Your task to perform on an android device: toggle sleep mode Image 0: 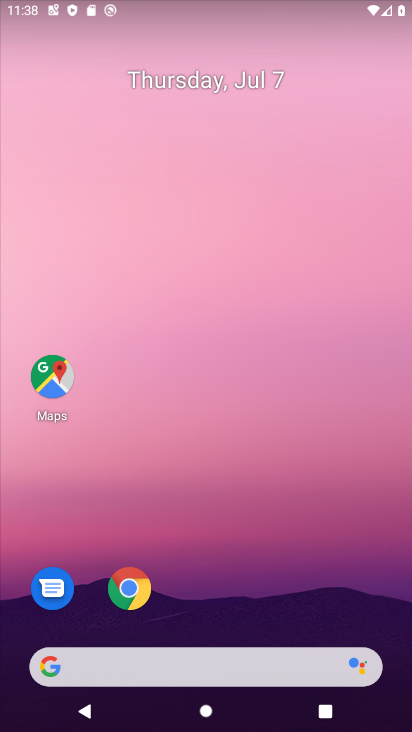
Step 0: drag from (268, 593) to (321, 66)
Your task to perform on an android device: toggle sleep mode Image 1: 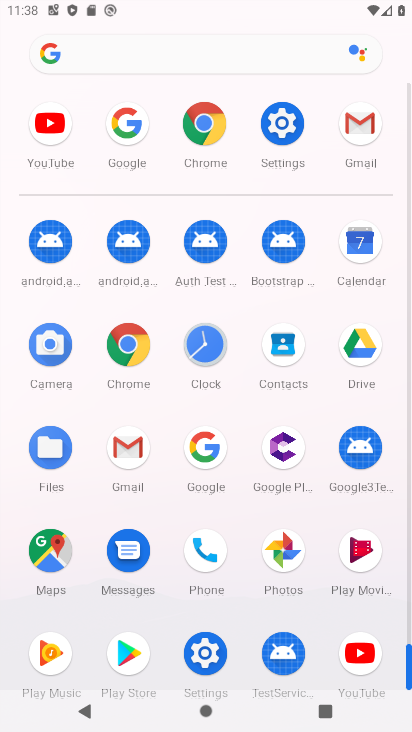
Step 1: click (282, 127)
Your task to perform on an android device: toggle sleep mode Image 2: 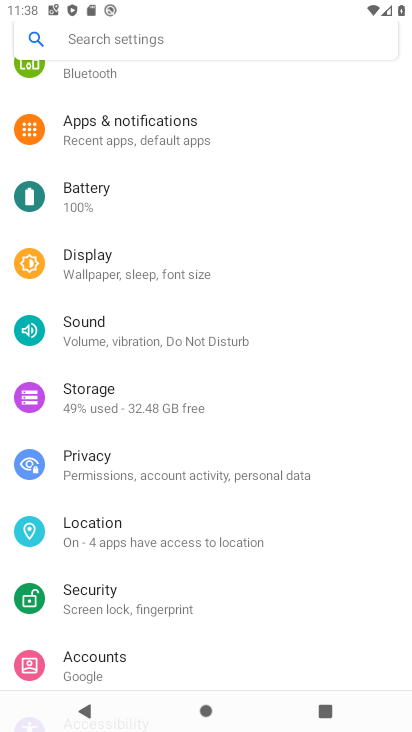
Step 2: click (129, 273)
Your task to perform on an android device: toggle sleep mode Image 3: 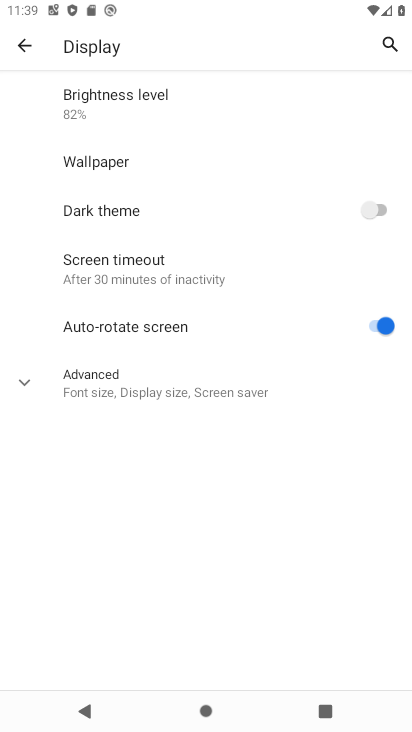
Step 3: click (124, 297)
Your task to perform on an android device: toggle sleep mode Image 4: 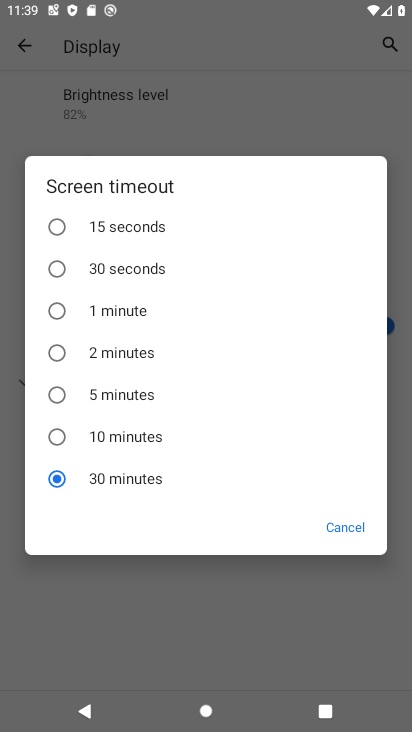
Step 4: click (59, 435)
Your task to perform on an android device: toggle sleep mode Image 5: 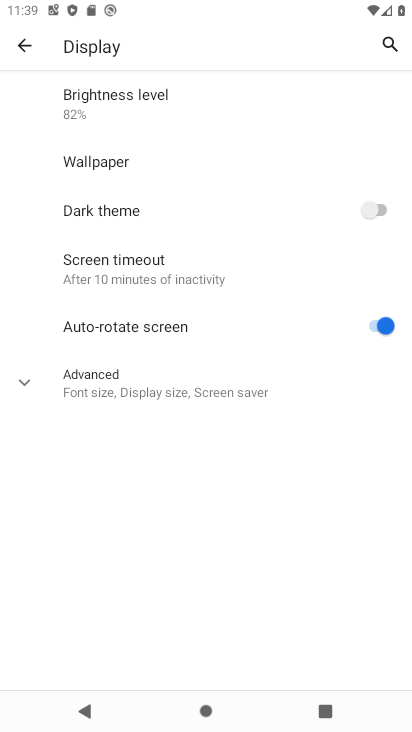
Step 5: task complete